Your task to perform on an android device: install app "Microsoft Authenticator" Image 0: 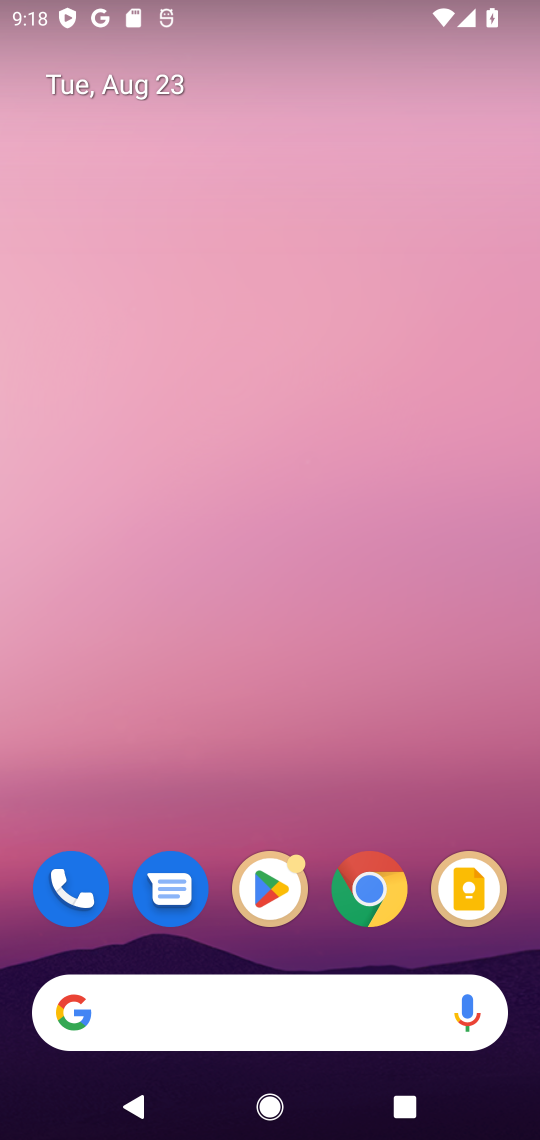
Step 0: click (266, 884)
Your task to perform on an android device: install app "Microsoft Authenticator" Image 1: 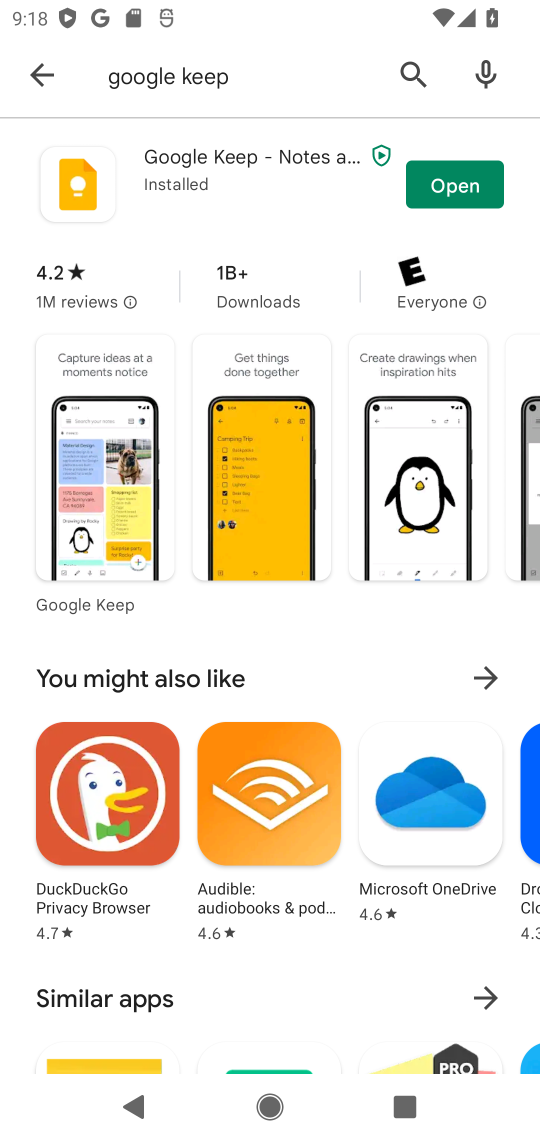
Step 1: click (44, 70)
Your task to perform on an android device: install app "Microsoft Authenticator" Image 2: 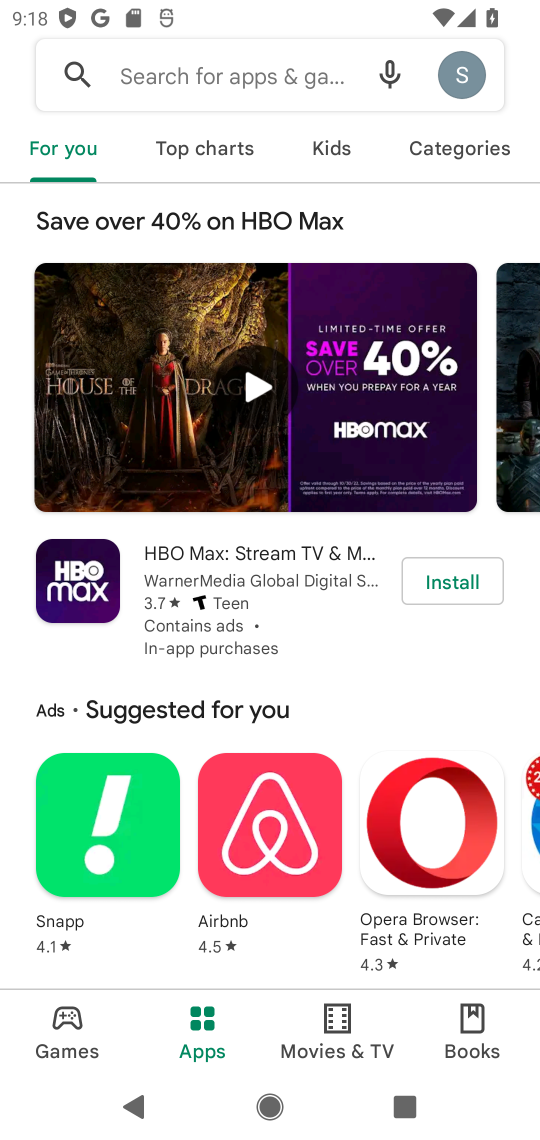
Step 2: click (143, 69)
Your task to perform on an android device: install app "Microsoft Authenticator" Image 3: 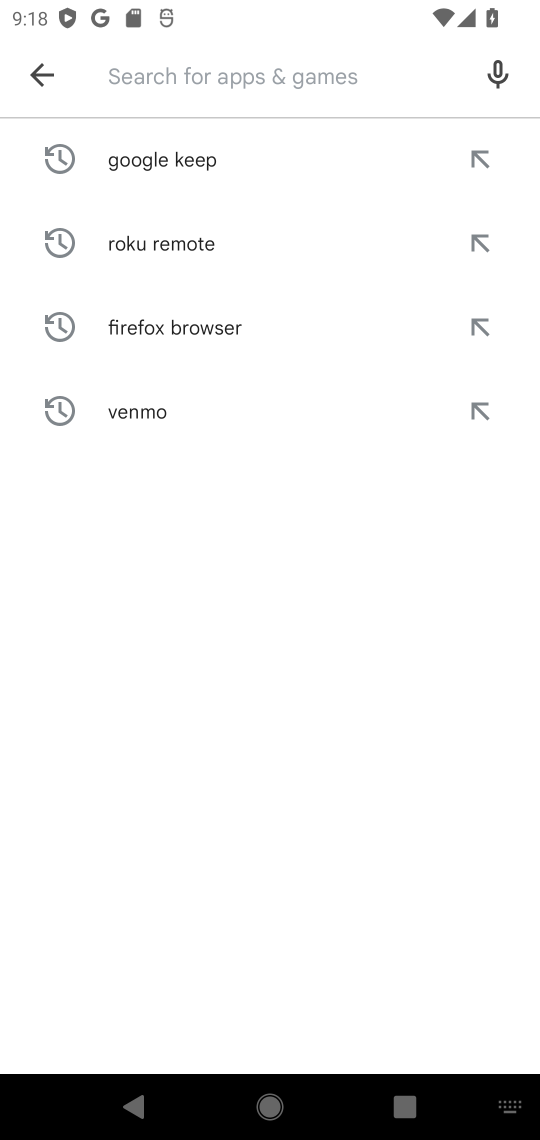
Step 3: type "Microsoft Authenticator"
Your task to perform on an android device: install app "Microsoft Authenticator" Image 4: 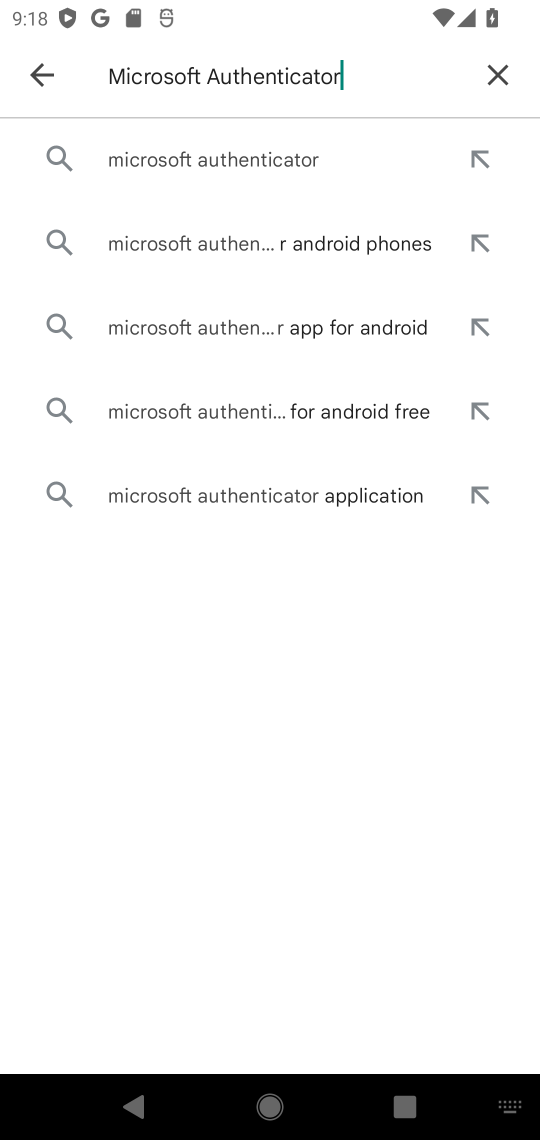
Step 4: click (206, 160)
Your task to perform on an android device: install app "Microsoft Authenticator" Image 5: 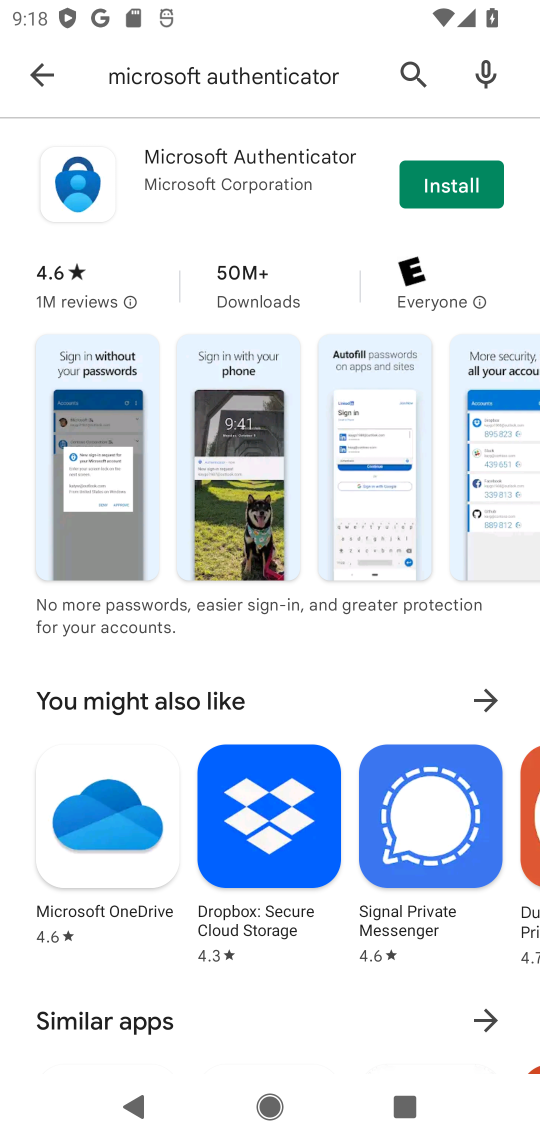
Step 5: click (452, 189)
Your task to perform on an android device: install app "Microsoft Authenticator" Image 6: 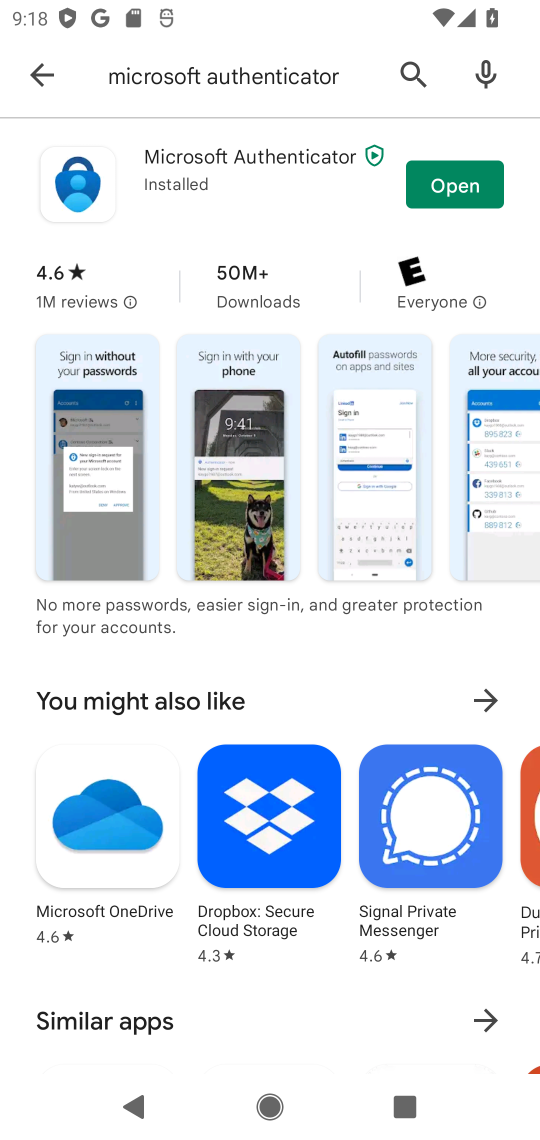
Step 6: click (452, 189)
Your task to perform on an android device: install app "Microsoft Authenticator" Image 7: 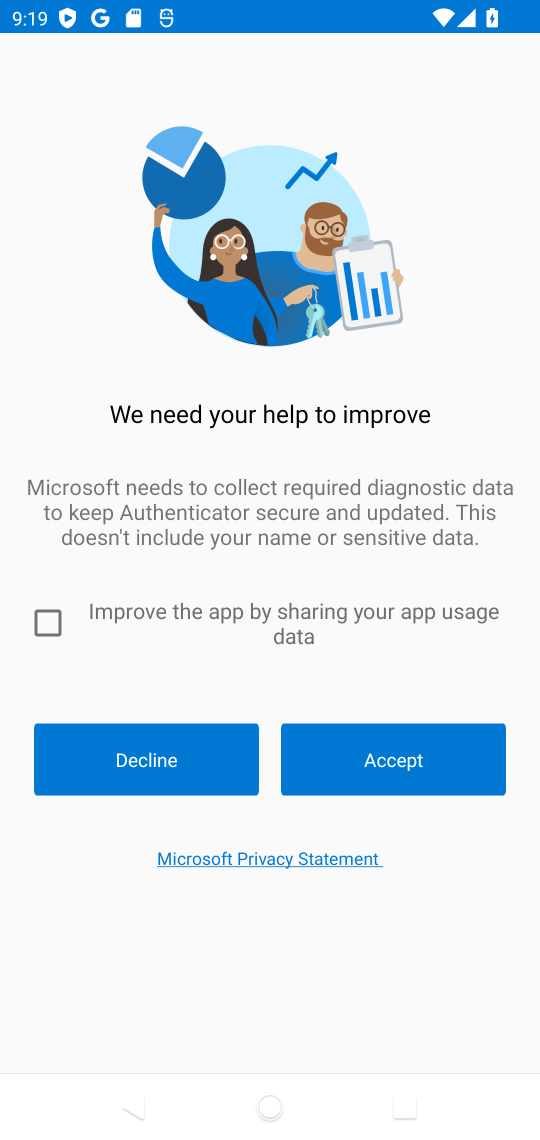
Step 7: task complete